Your task to perform on an android device: turn pop-ups off in chrome Image 0: 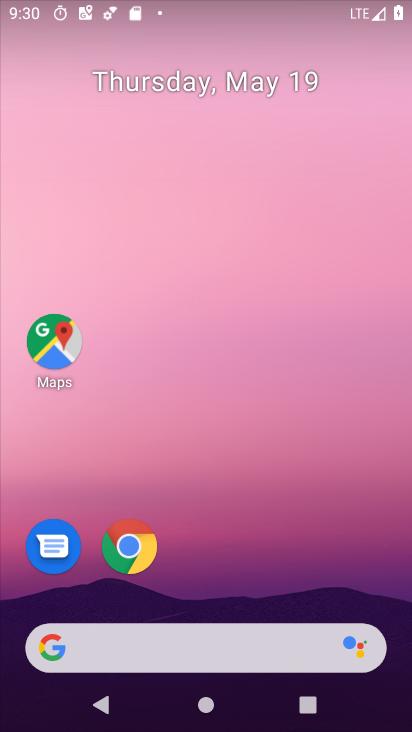
Step 0: drag from (395, 678) to (180, 137)
Your task to perform on an android device: turn pop-ups off in chrome Image 1: 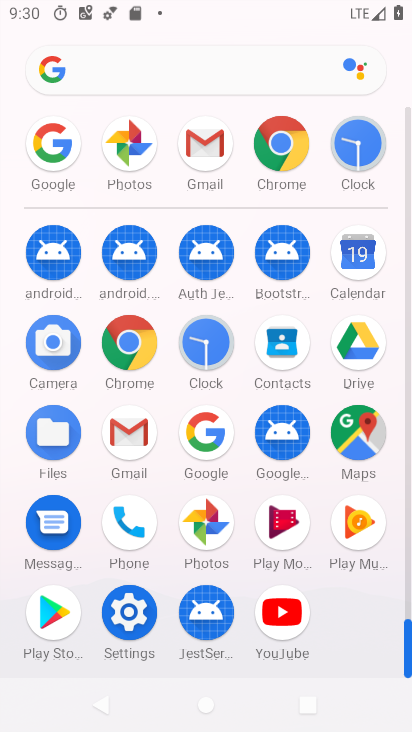
Step 1: click (269, 122)
Your task to perform on an android device: turn pop-ups off in chrome Image 2: 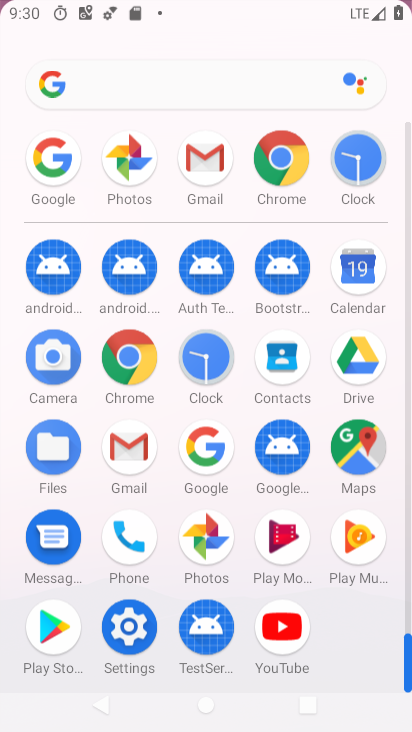
Step 2: click (279, 146)
Your task to perform on an android device: turn pop-ups off in chrome Image 3: 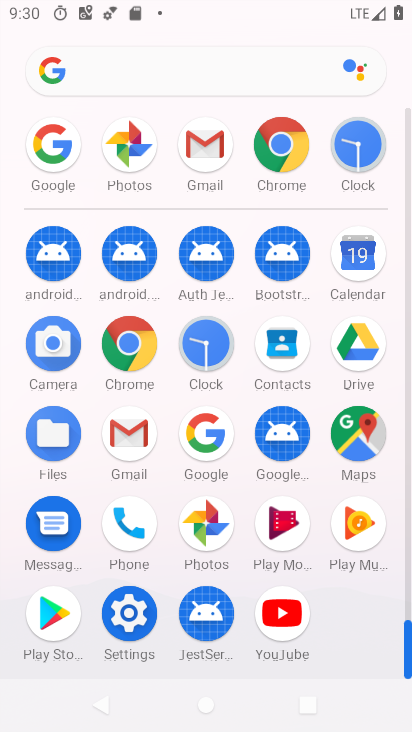
Step 3: click (279, 146)
Your task to perform on an android device: turn pop-ups off in chrome Image 4: 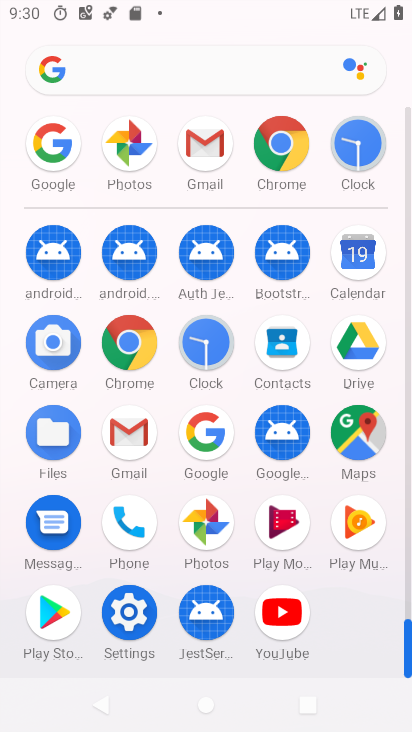
Step 4: click (280, 145)
Your task to perform on an android device: turn pop-ups off in chrome Image 5: 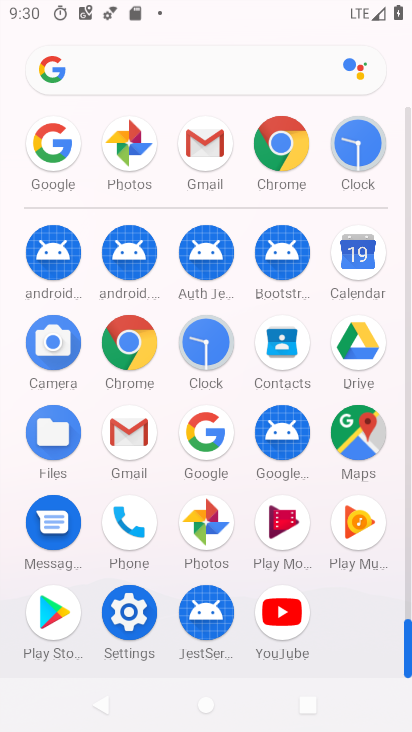
Step 5: click (280, 145)
Your task to perform on an android device: turn pop-ups off in chrome Image 6: 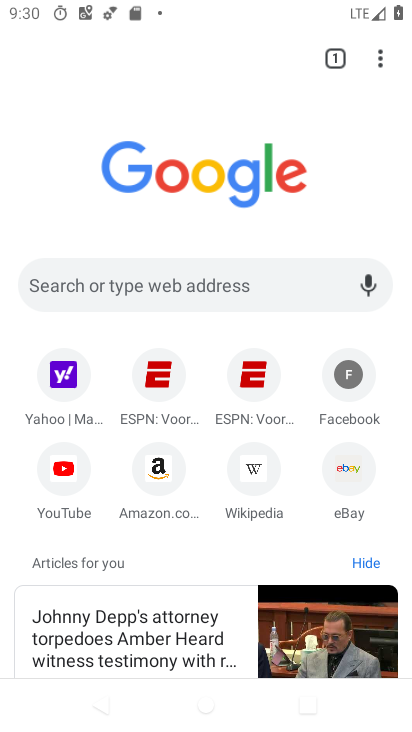
Step 6: click (373, 69)
Your task to perform on an android device: turn pop-ups off in chrome Image 7: 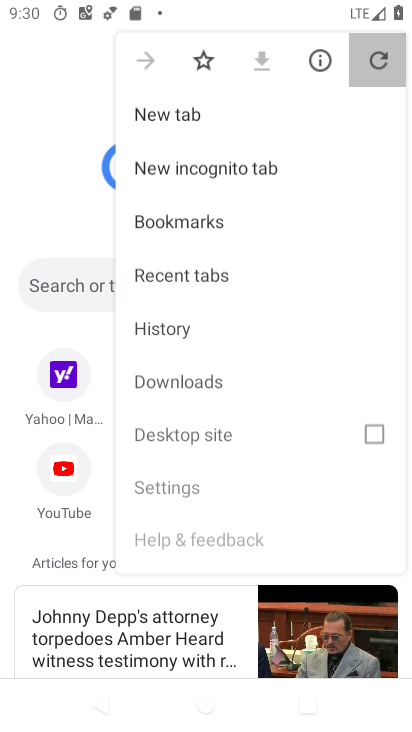
Step 7: click (380, 63)
Your task to perform on an android device: turn pop-ups off in chrome Image 8: 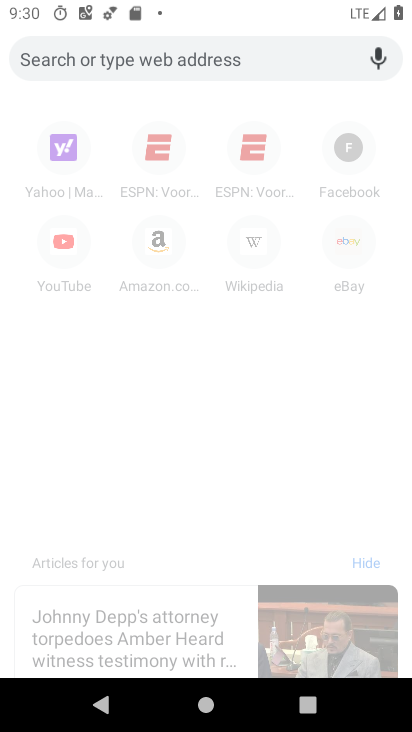
Step 8: click (376, 60)
Your task to perform on an android device: turn pop-ups off in chrome Image 9: 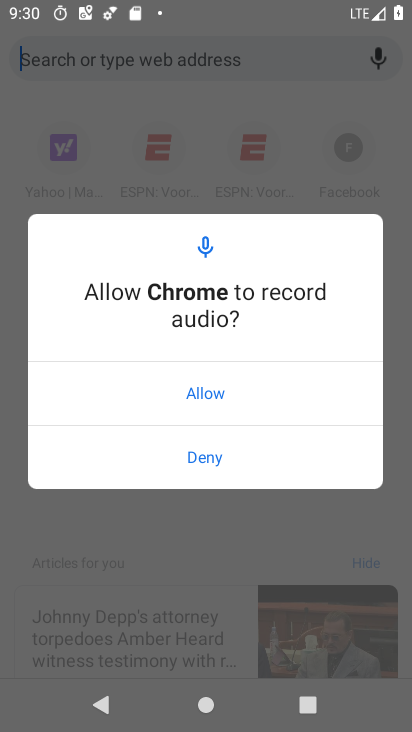
Step 9: click (213, 384)
Your task to perform on an android device: turn pop-ups off in chrome Image 10: 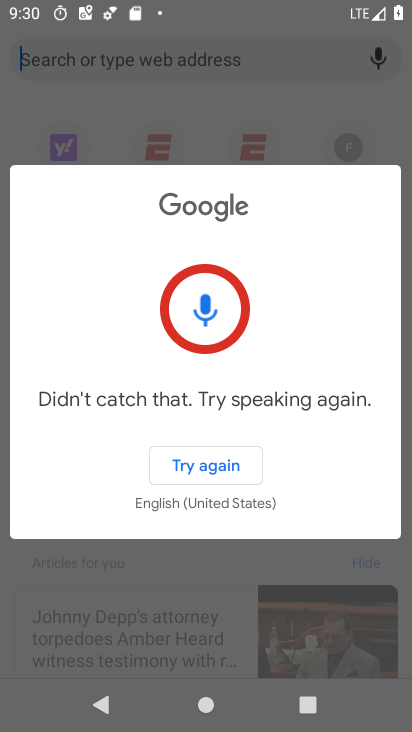
Step 10: click (139, 118)
Your task to perform on an android device: turn pop-ups off in chrome Image 11: 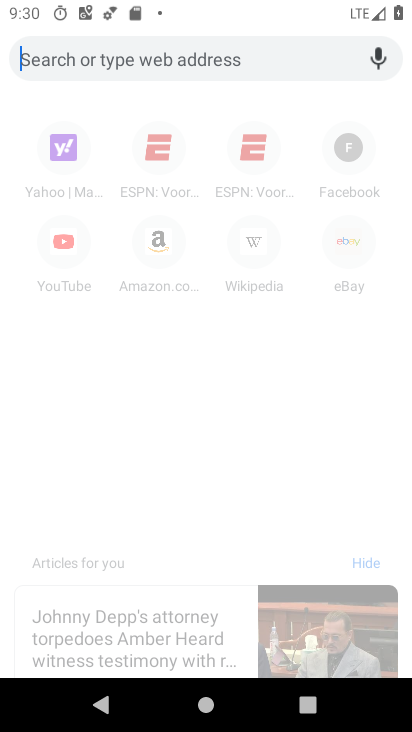
Step 11: press home button
Your task to perform on an android device: turn pop-ups off in chrome Image 12: 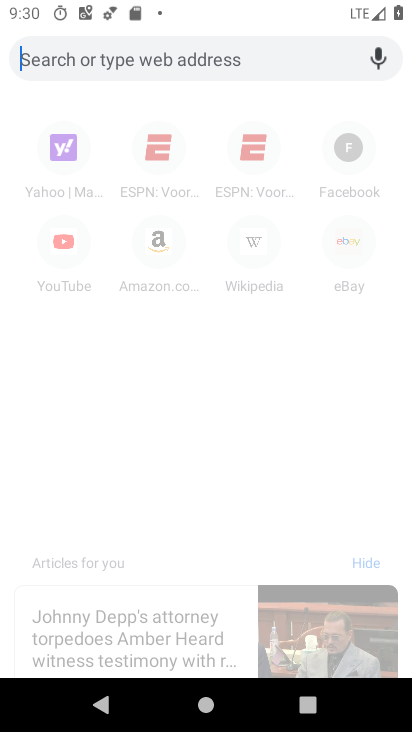
Step 12: press home button
Your task to perform on an android device: turn pop-ups off in chrome Image 13: 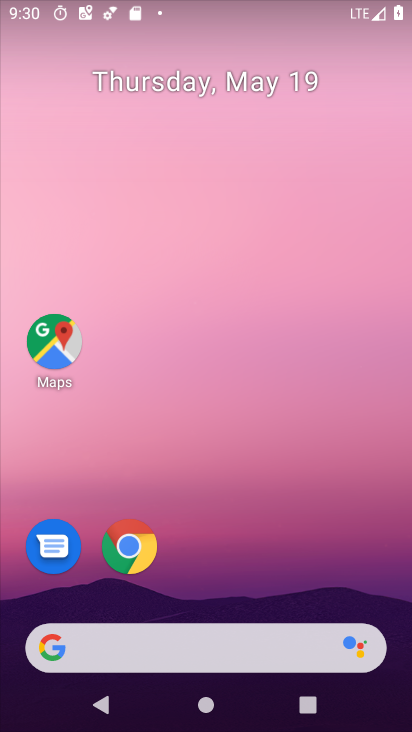
Step 13: drag from (269, 655) to (149, 88)
Your task to perform on an android device: turn pop-ups off in chrome Image 14: 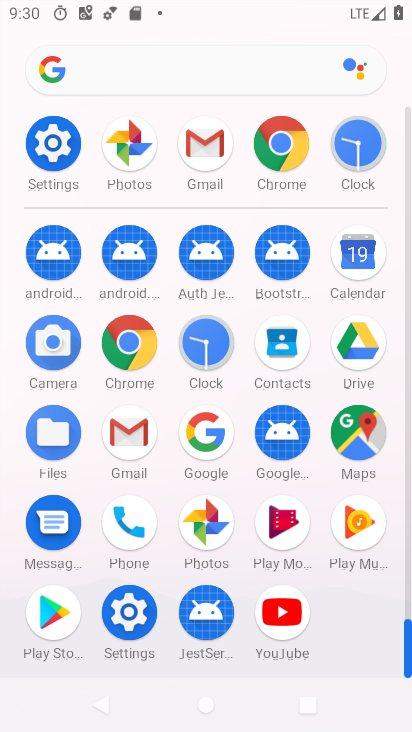
Step 14: click (277, 164)
Your task to perform on an android device: turn pop-ups off in chrome Image 15: 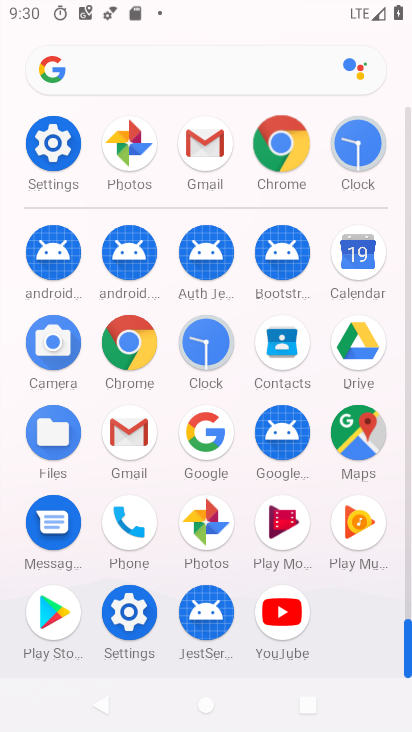
Step 15: click (278, 162)
Your task to perform on an android device: turn pop-ups off in chrome Image 16: 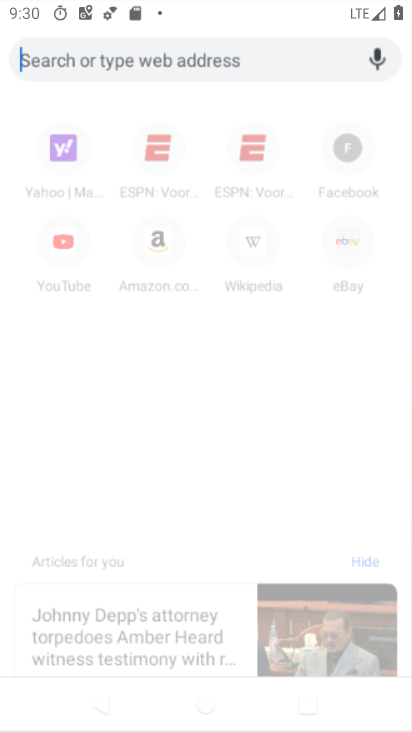
Step 16: click (278, 161)
Your task to perform on an android device: turn pop-ups off in chrome Image 17: 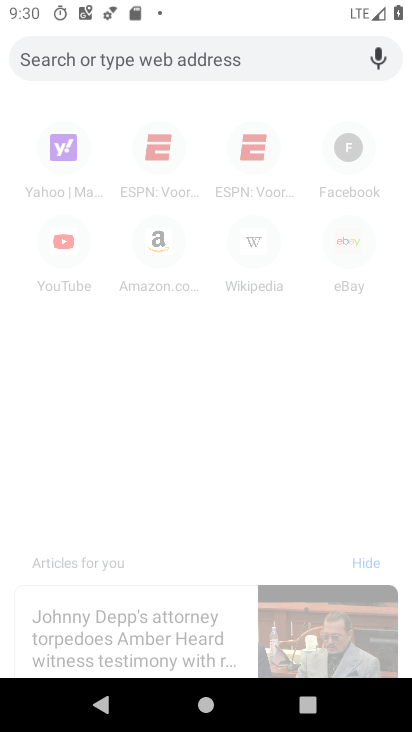
Step 17: press back button
Your task to perform on an android device: turn pop-ups off in chrome Image 18: 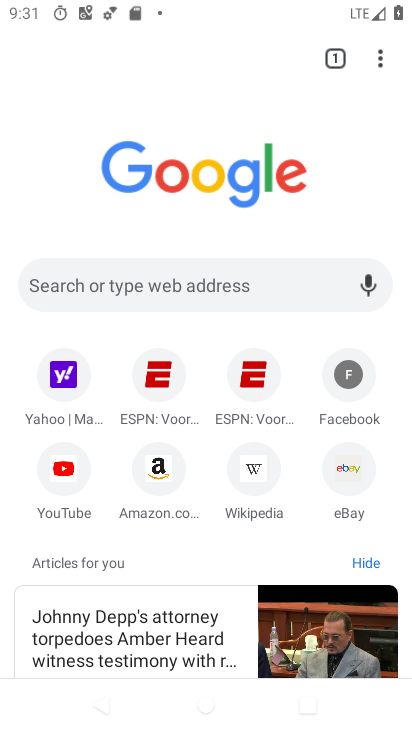
Step 18: drag from (377, 63) to (163, 495)
Your task to perform on an android device: turn pop-ups off in chrome Image 19: 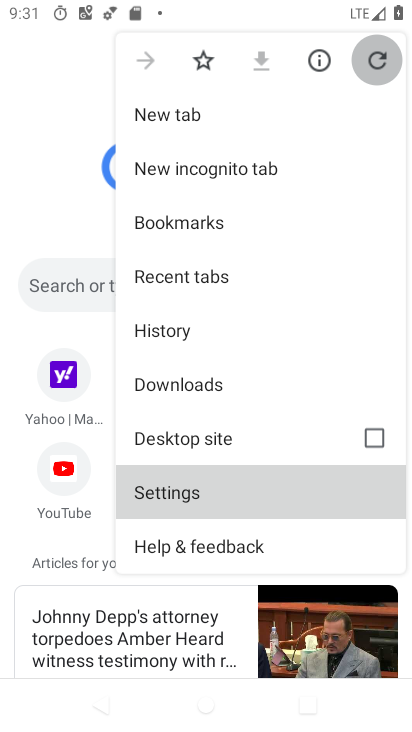
Step 19: drag from (375, 73) to (164, 490)
Your task to perform on an android device: turn pop-ups off in chrome Image 20: 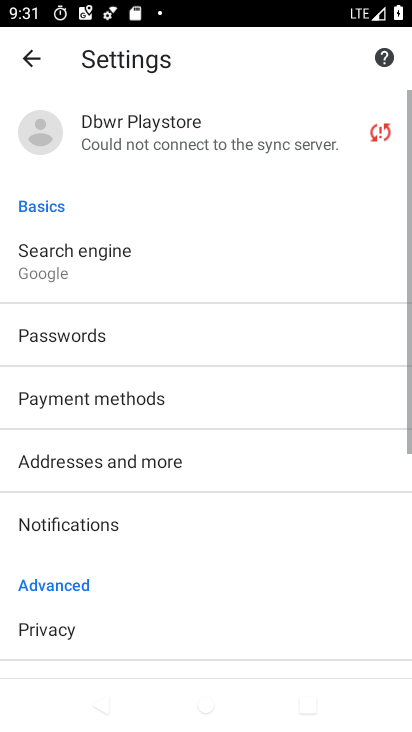
Step 20: drag from (158, 507) to (181, 59)
Your task to perform on an android device: turn pop-ups off in chrome Image 21: 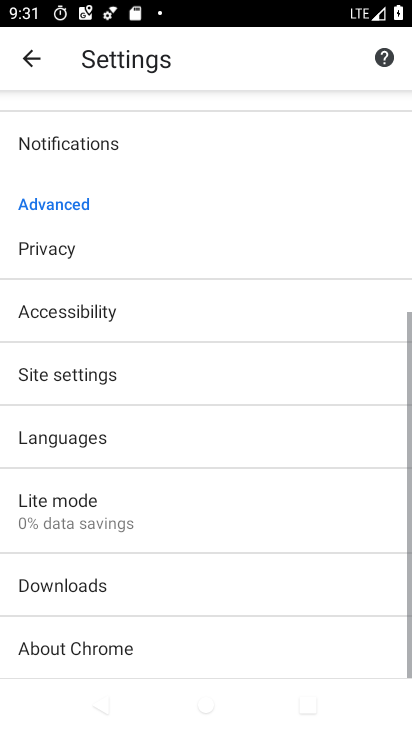
Step 21: drag from (164, 503) to (341, 14)
Your task to perform on an android device: turn pop-ups off in chrome Image 22: 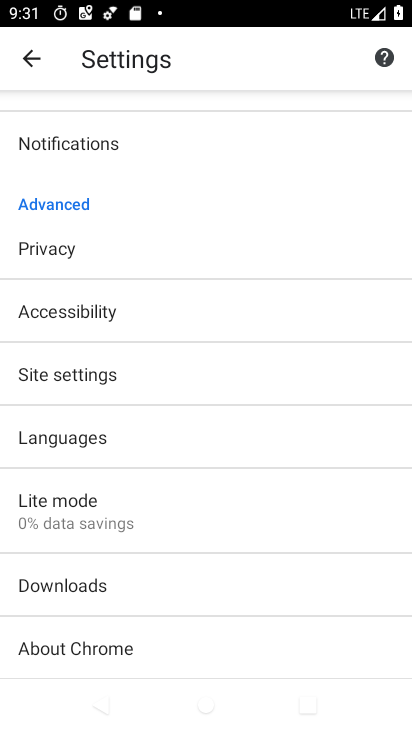
Step 22: click (64, 374)
Your task to perform on an android device: turn pop-ups off in chrome Image 23: 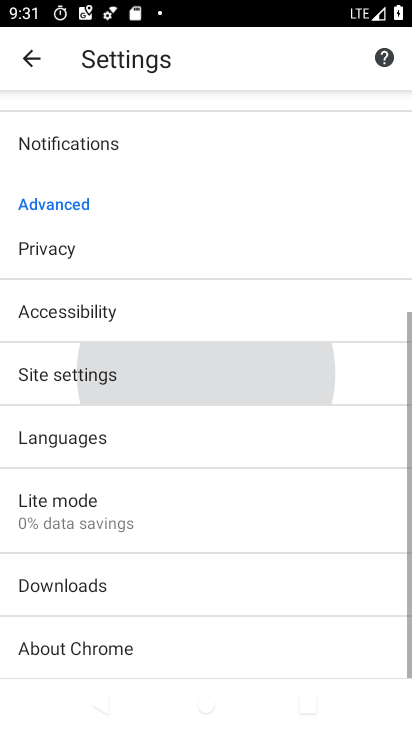
Step 23: click (64, 374)
Your task to perform on an android device: turn pop-ups off in chrome Image 24: 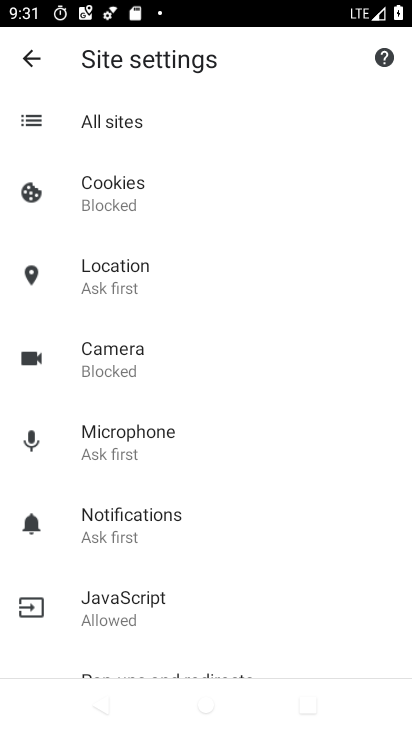
Step 24: drag from (127, 518) to (139, 74)
Your task to perform on an android device: turn pop-ups off in chrome Image 25: 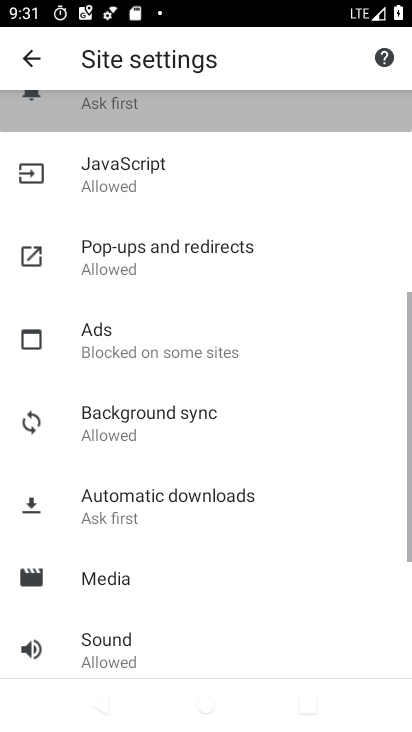
Step 25: drag from (153, 508) to (151, 181)
Your task to perform on an android device: turn pop-ups off in chrome Image 26: 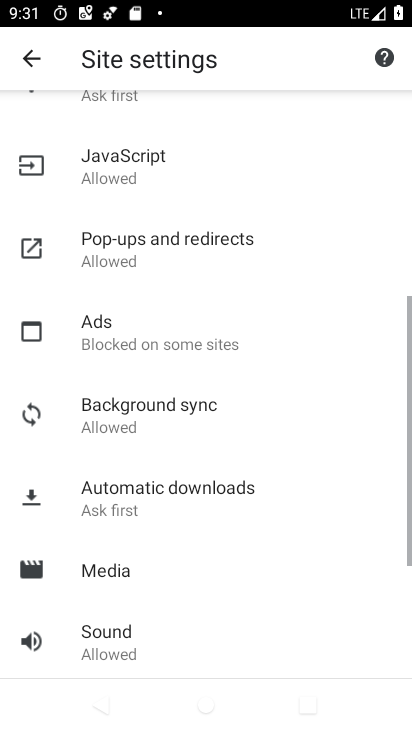
Step 26: drag from (176, 453) to (176, 52)
Your task to perform on an android device: turn pop-ups off in chrome Image 27: 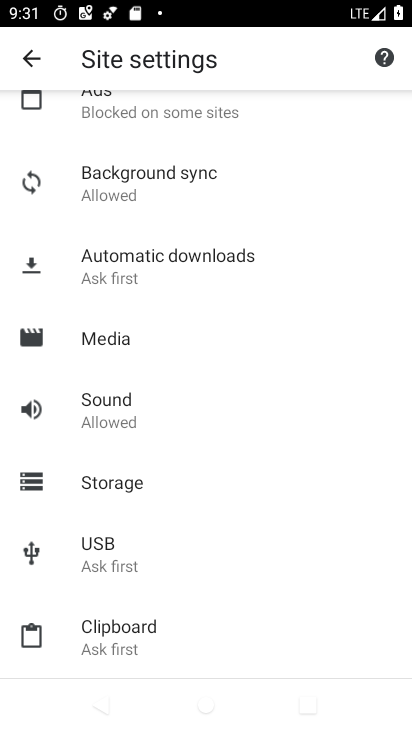
Step 27: drag from (103, 214) to (192, 524)
Your task to perform on an android device: turn pop-ups off in chrome Image 28: 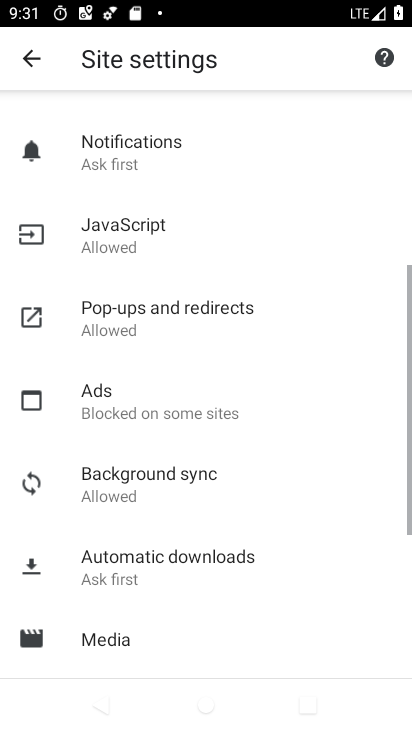
Step 28: drag from (196, 238) to (229, 553)
Your task to perform on an android device: turn pop-ups off in chrome Image 29: 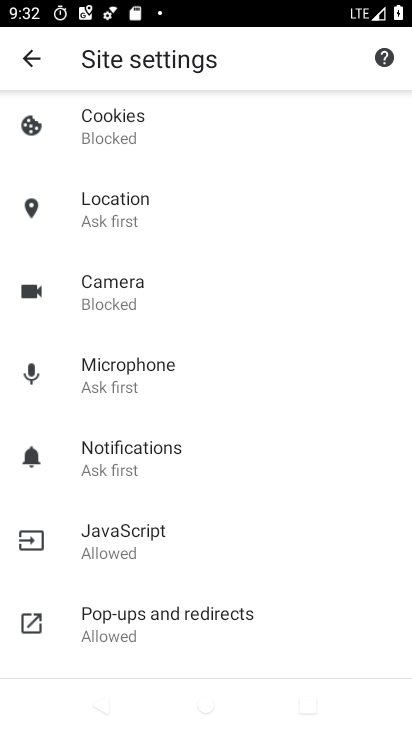
Step 29: click (132, 609)
Your task to perform on an android device: turn pop-ups off in chrome Image 30: 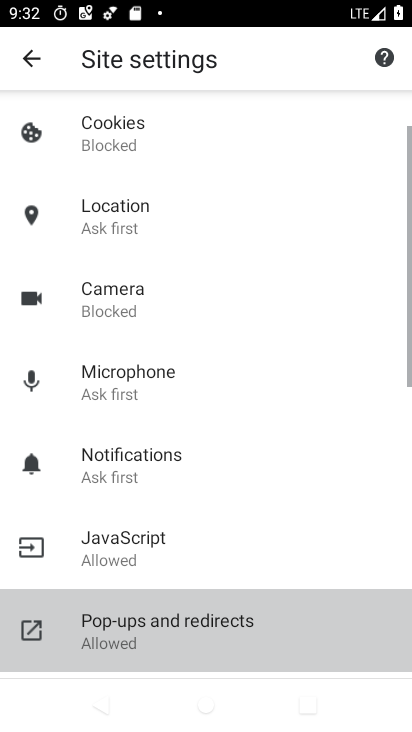
Step 30: click (135, 625)
Your task to perform on an android device: turn pop-ups off in chrome Image 31: 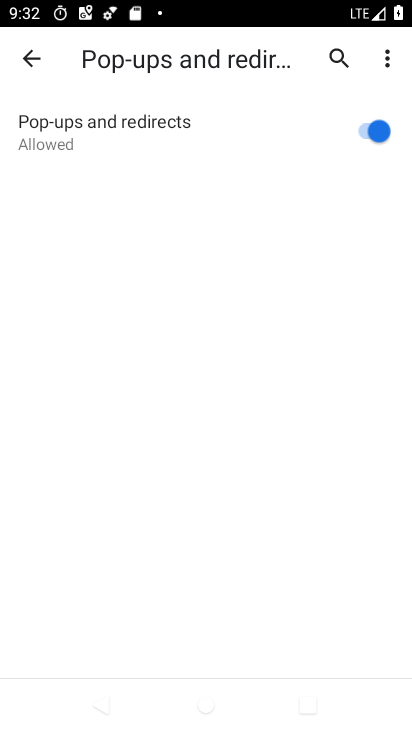
Step 31: click (374, 125)
Your task to perform on an android device: turn pop-ups off in chrome Image 32: 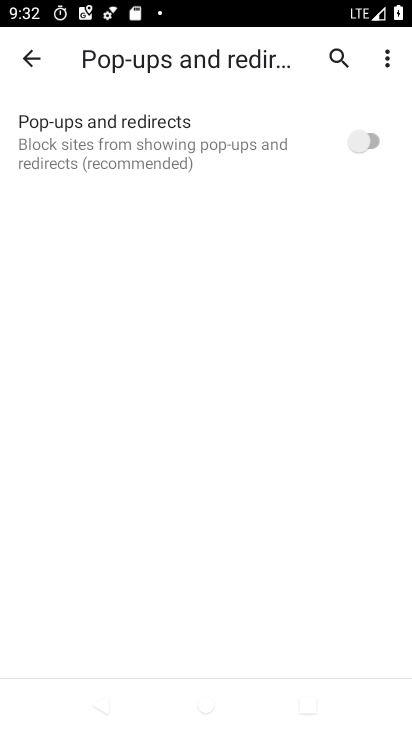
Step 32: task complete